Your task to perform on an android device: Go to notification settings Image 0: 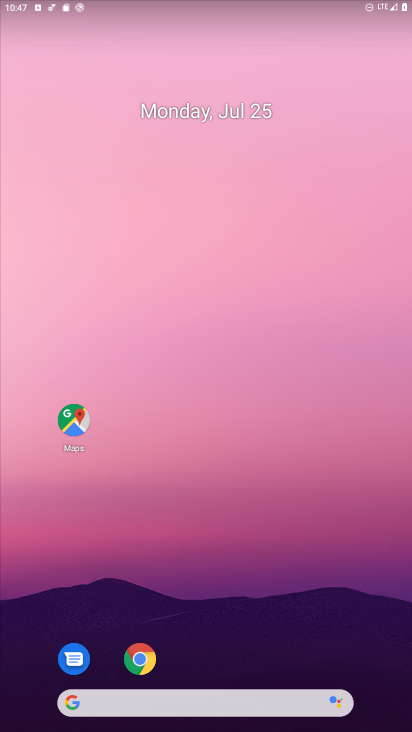
Step 0: drag from (221, 670) to (234, 208)
Your task to perform on an android device: Go to notification settings Image 1: 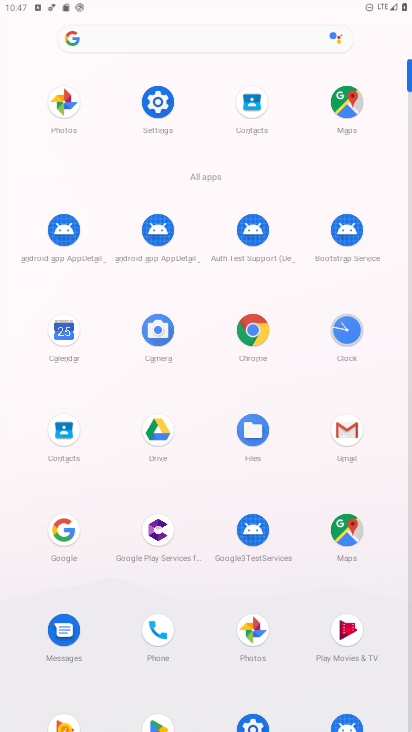
Step 1: click (146, 107)
Your task to perform on an android device: Go to notification settings Image 2: 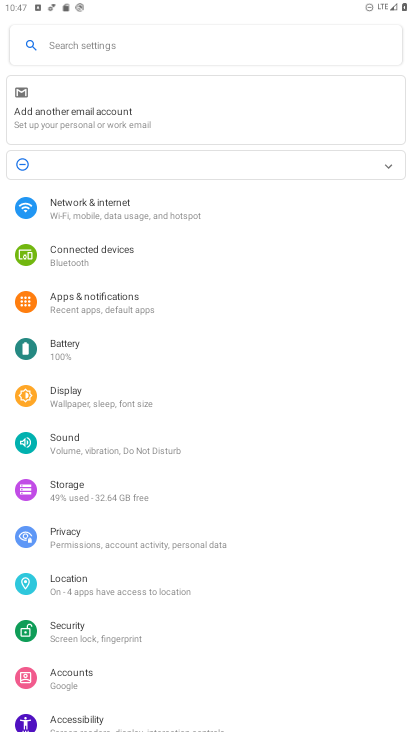
Step 2: click (142, 316)
Your task to perform on an android device: Go to notification settings Image 3: 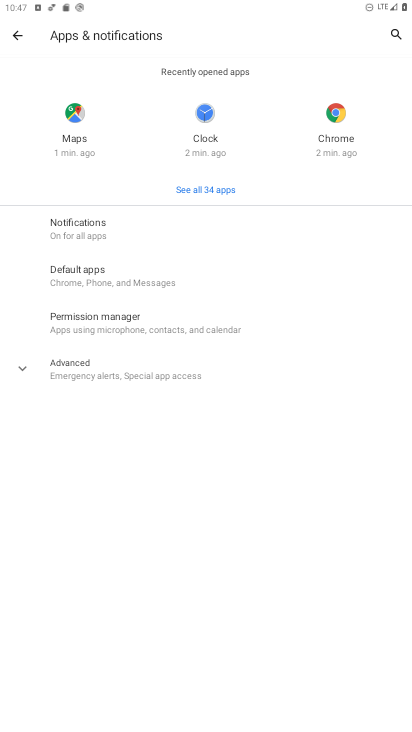
Step 3: click (159, 239)
Your task to perform on an android device: Go to notification settings Image 4: 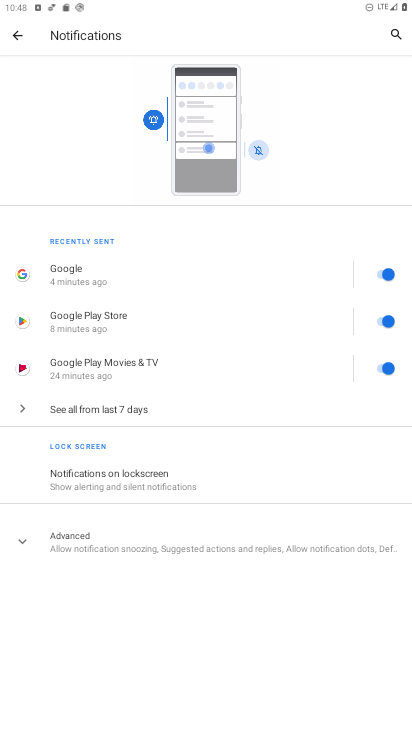
Step 4: task complete